Your task to perform on an android device: turn off notifications in google photos Image 0: 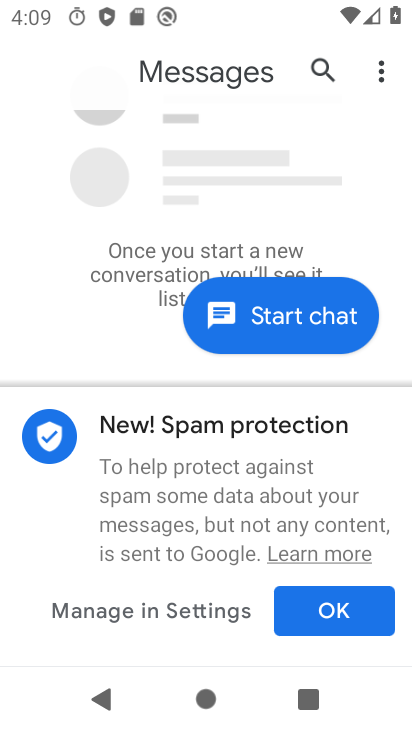
Step 0: press back button
Your task to perform on an android device: turn off notifications in google photos Image 1: 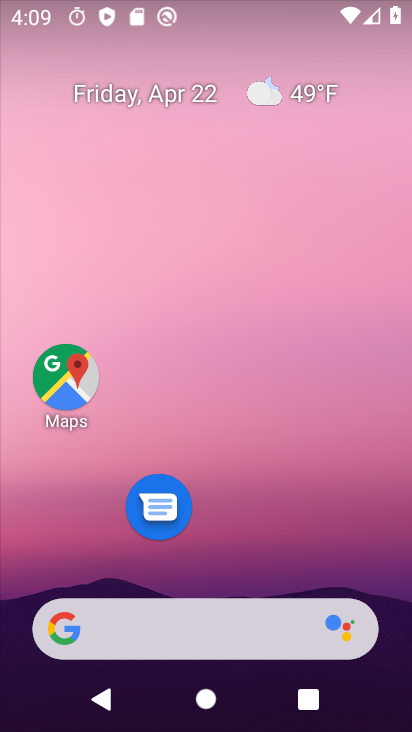
Step 1: drag from (227, 543) to (347, 13)
Your task to perform on an android device: turn off notifications in google photos Image 2: 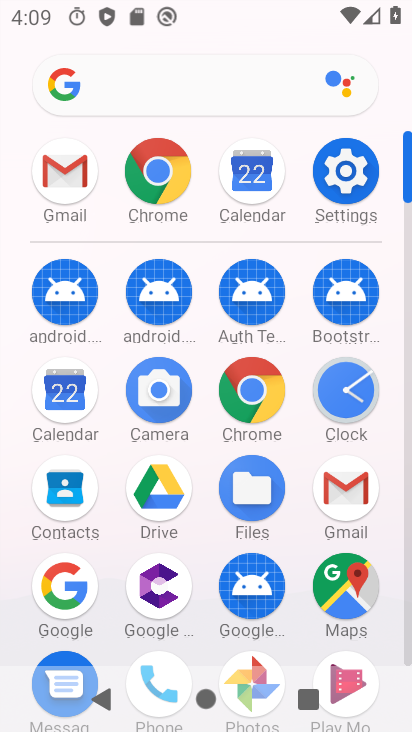
Step 2: click (246, 662)
Your task to perform on an android device: turn off notifications in google photos Image 3: 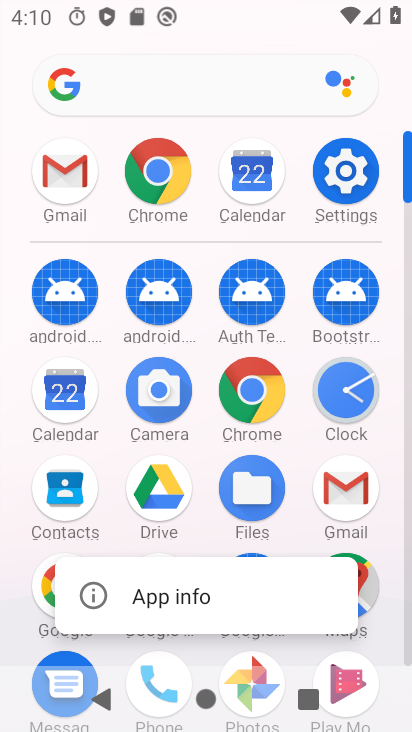
Step 3: click (188, 600)
Your task to perform on an android device: turn off notifications in google photos Image 4: 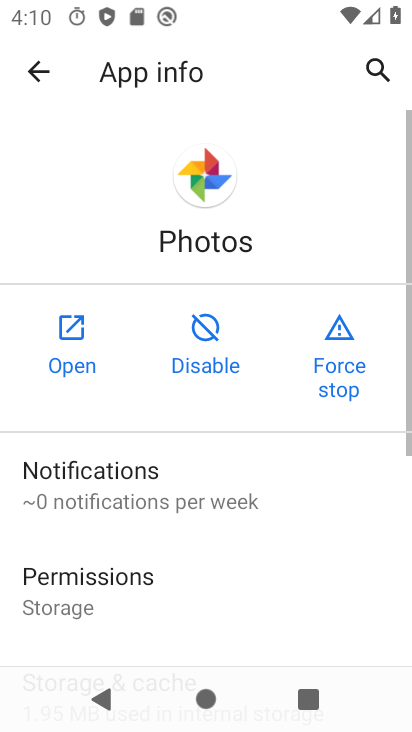
Step 4: click (141, 488)
Your task to perform on an android device: turn off notifications in google photos Image 5: 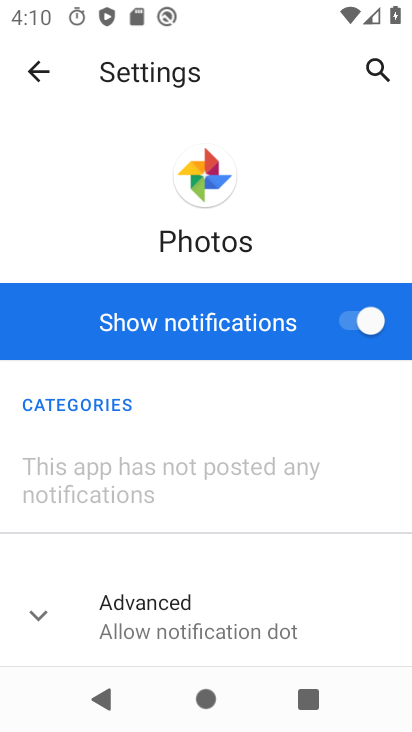
Step 5: click (366, 321)
Your task to perform on an android device: turn off notifications in google photos Image 6: 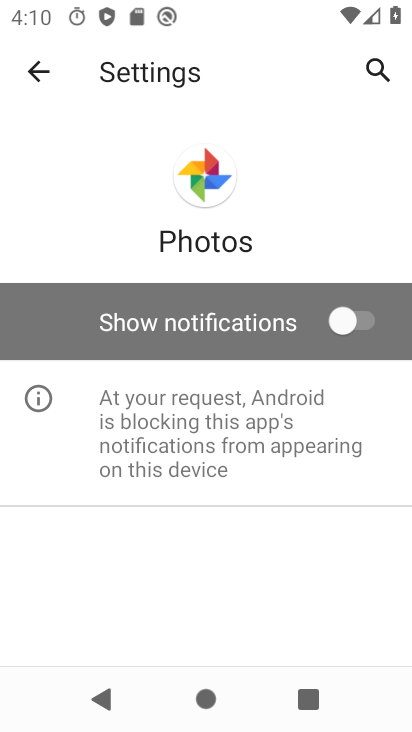
Step 6: task complete